Your task to perform on an android device: Open calendar and show me the first week of next month Image 0: 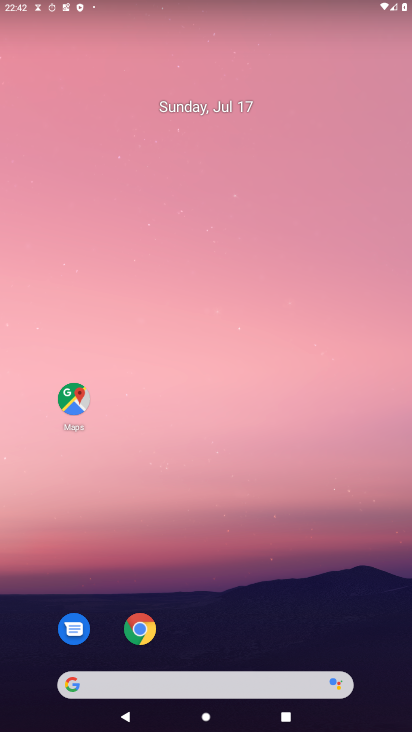
Step 0: drag from (216, 655) to (210, 119)
Your task to perform on an android device: Open calendar and show me the first week of next month Image 1: 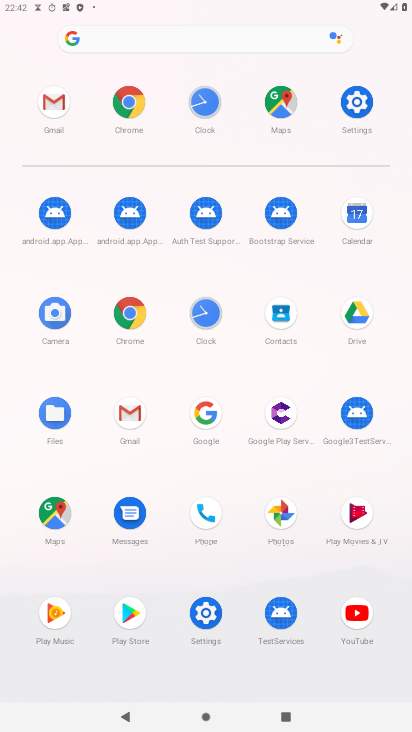
Step 1: click (360, 213)
Your task to perform on an android device: Open calendar and show me the first week of next month Image 2: 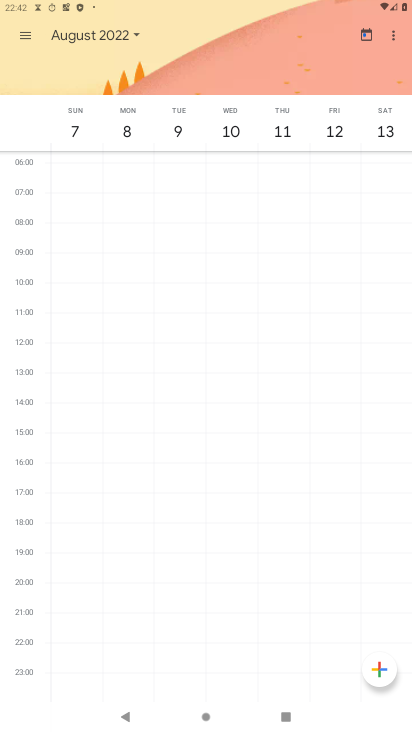
Step 2: click (136, 37)
Your task to perform on an android device: Open calendar and show me the first week of next month Image 3: 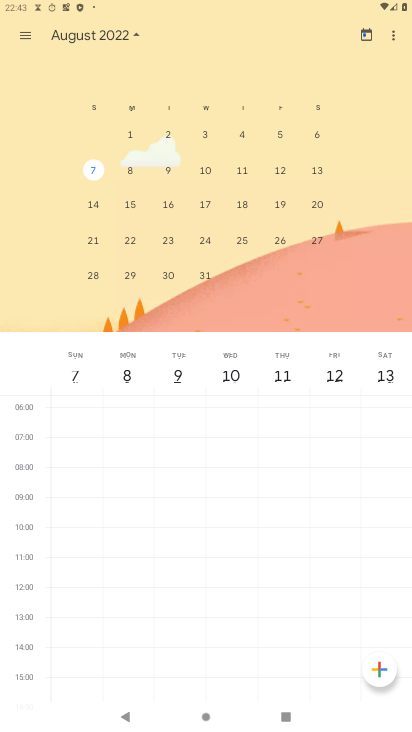
Step 3: click (129, 132)
Your task to perform on an android device: Open calendar and show me the first week of next month Image 4: 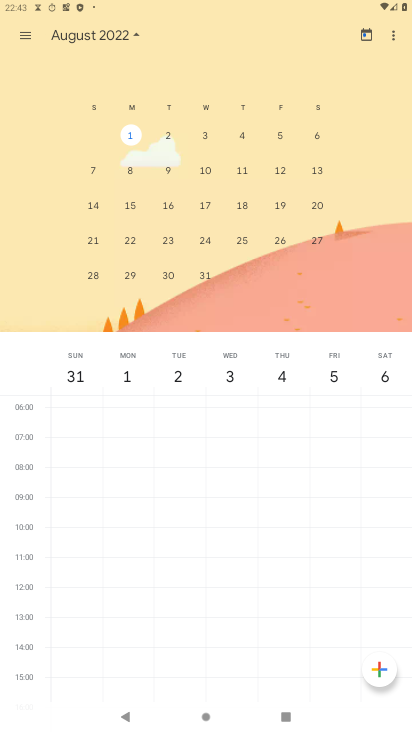
Step 4: click (29, 33)
Your task to perform on an android device: Open calendar and show me the first week of next month Image 5: 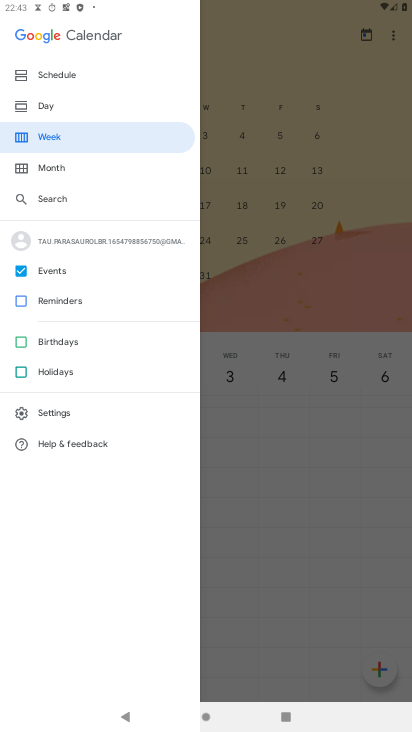
Step 5: click (52, 135)
Your task to perform on an android device: Open calendar and show me the first week of next month Image 6: 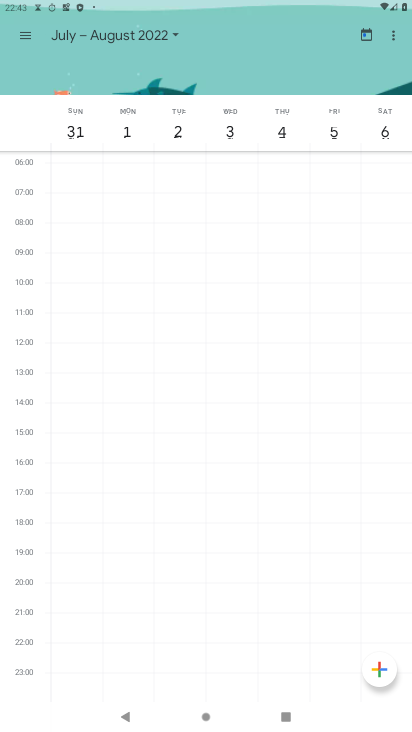
Step 6: task complete